Your task to perform on an android device: Go to eBay Image 0: 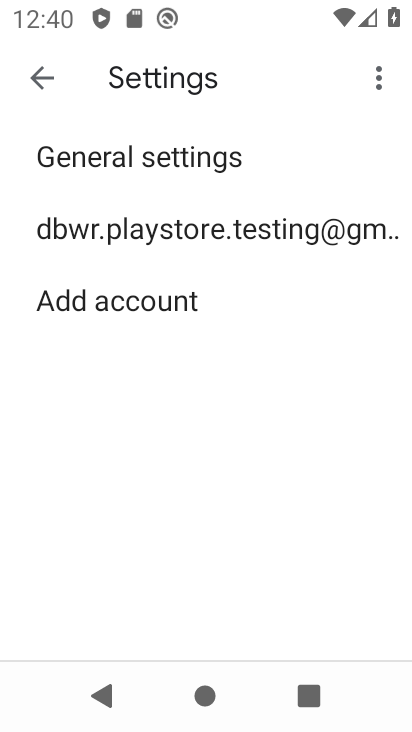
Step 0: press home button
Your task to perform on an android device: Go to eBay Image 1: 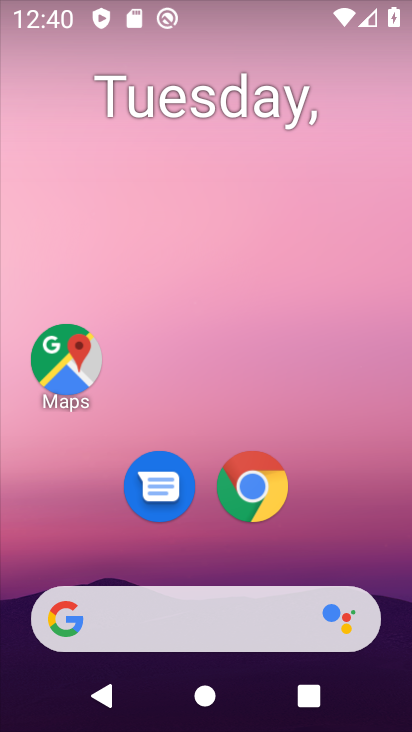
Step 1: click (272, 494)
Your task to perform on an android device: Go to eBay Image 2: 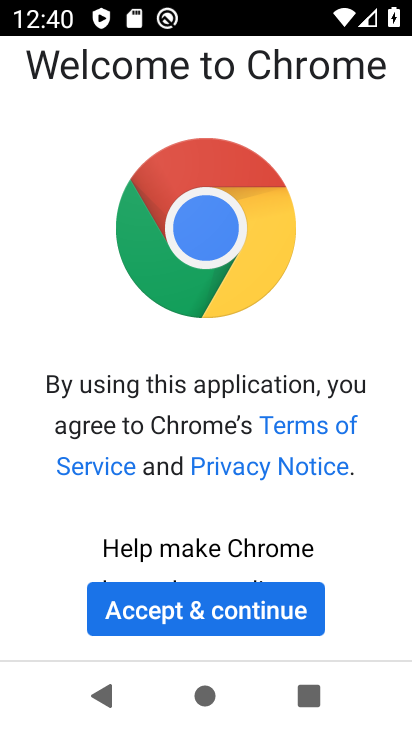
Step 2: click (268, 600)
Your task to perform on an android device: Go to eBay Image 3: 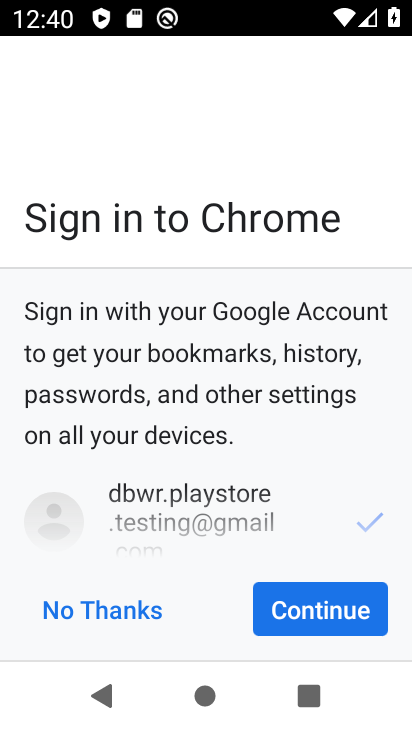
Step 3: click (290, 602)
Your task to perform on an android device: Go to eBay Image 4: 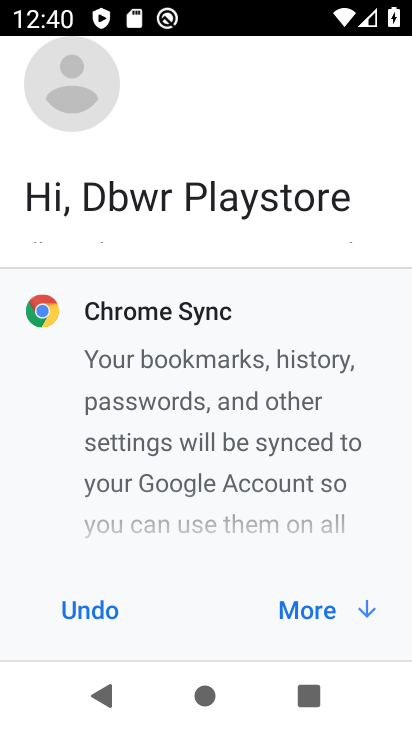
Step 4: click (290, 602)
Your task to perform on an android device: Go to eBay Image 5: 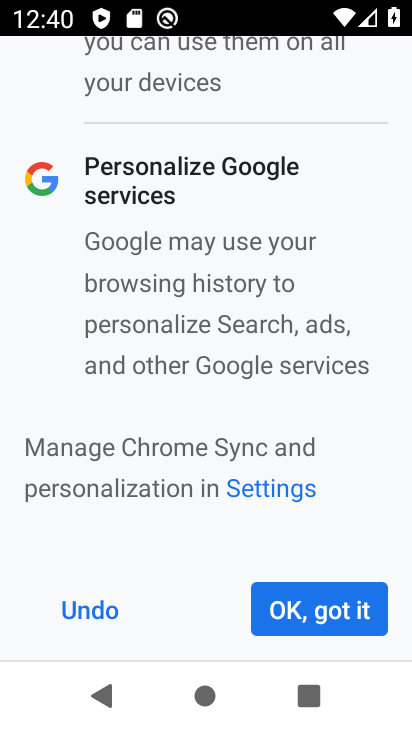
Step 5: click (290, 602)
Your task to perform on an android device: Go to eBay Image 6: 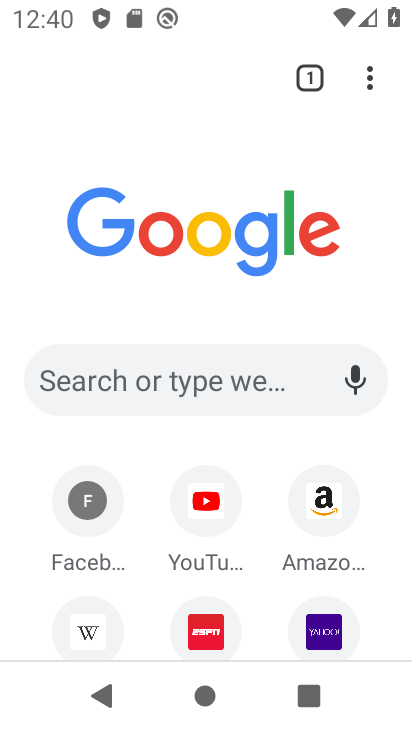
Step 6: drag from (389, 548) to (366, 206)
Your task to perform on an android device: Go to eBay Image 7: 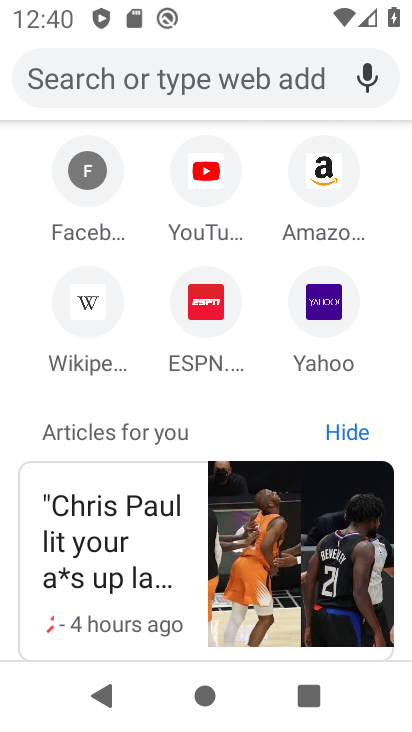
Step 7: click (203, 75)
Your task to perform on an android device: Go to eBay Image 8: 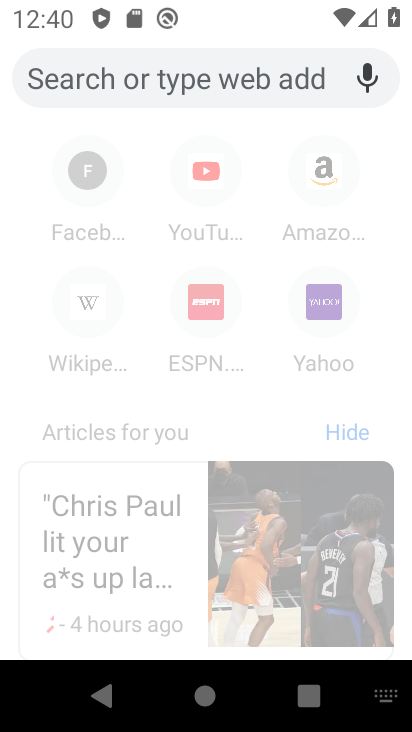
Step 8: type "ebay"
Your task to perform on an android device: Go to eBay Image 9: 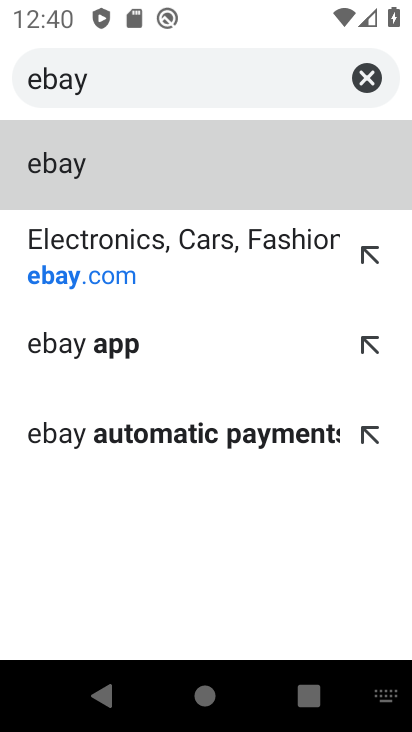
Step 9: click (122, 261)
Your task to perform on an android device: Go to eBay Image 10: 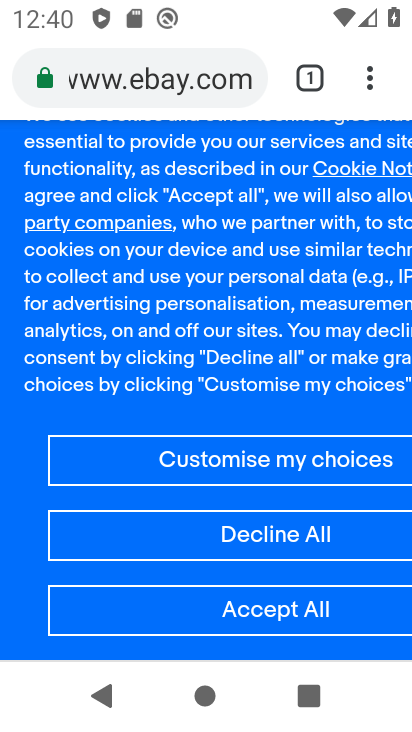
Step 10: task complete